Your task to perform on an android device: Open Wikipedia Image 0: 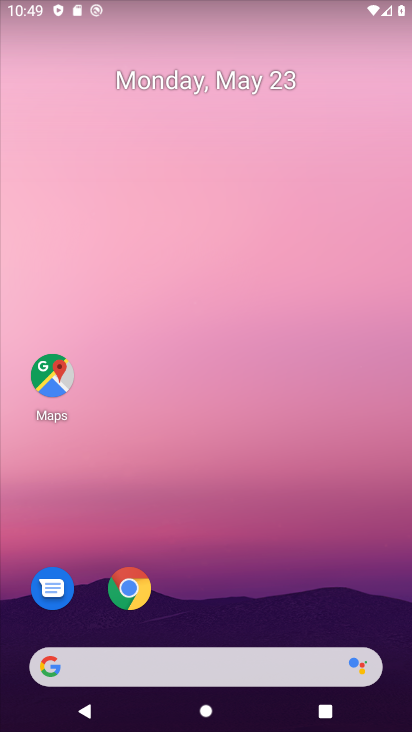
Step 0: click (119, 593)
Your task to perform on an android device: Open Wikipedia Image 1: 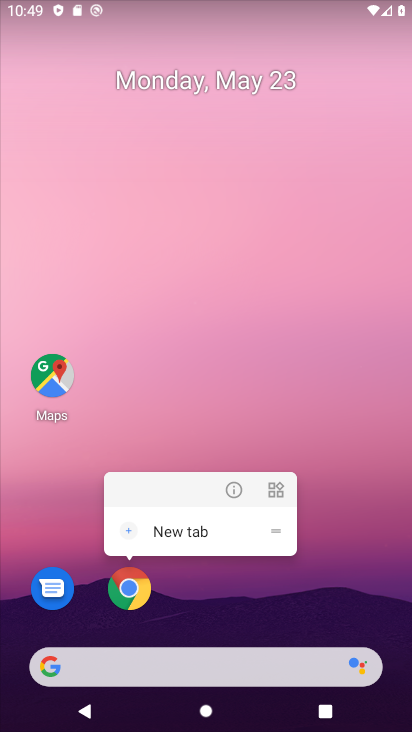
Step 1: click (120, 609)
Your task to perform on an android device: Open Wikipedia Image 2: 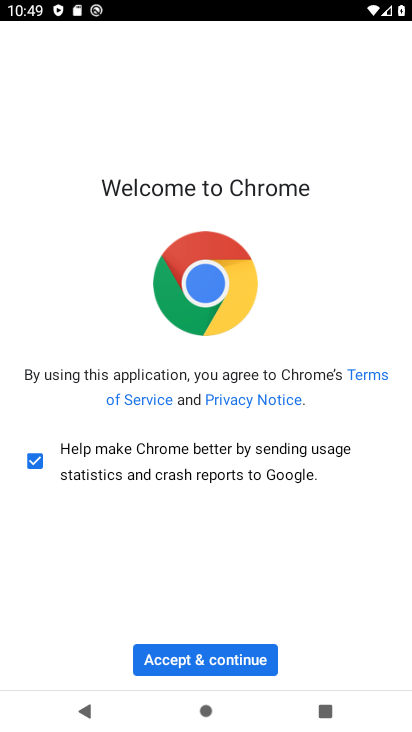
Step 2: click (120, 609)
Your task to perform on an android device: Open Wikipedia Image 3: 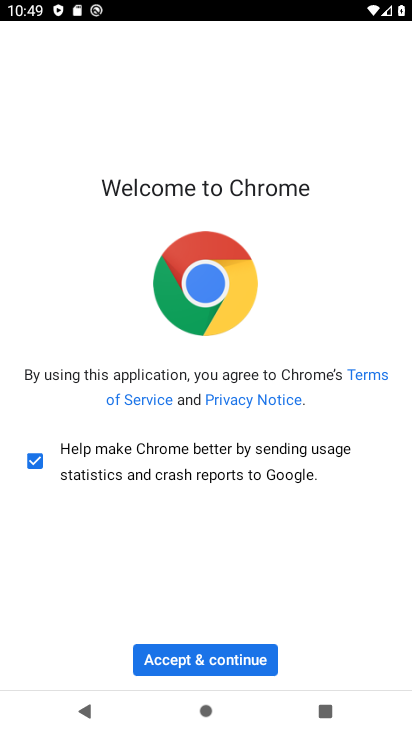
Step 3: click (120, 609)
Your task to perform on an android device: Open Wikipedia Image 4: 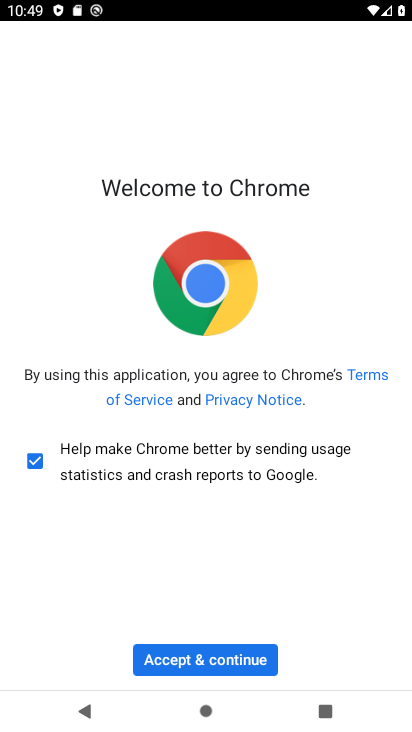
Step 4: click (193, 677)
Your task to perform on an android device: Open Wikipedia Image 5: 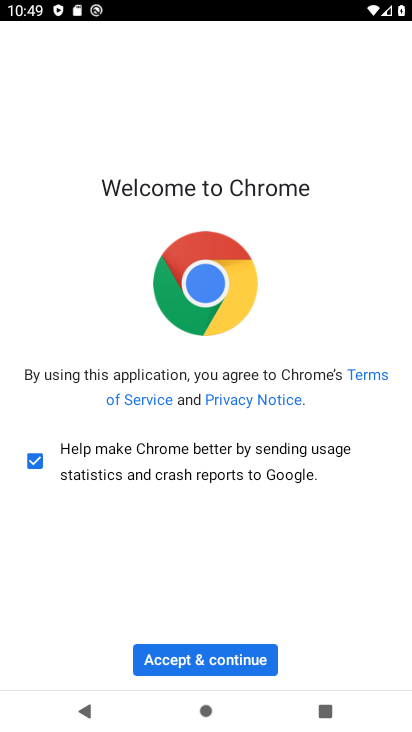
Step 5: click (224, 652)
Your task to perform on an android device: Open Wikipedia Image 6: 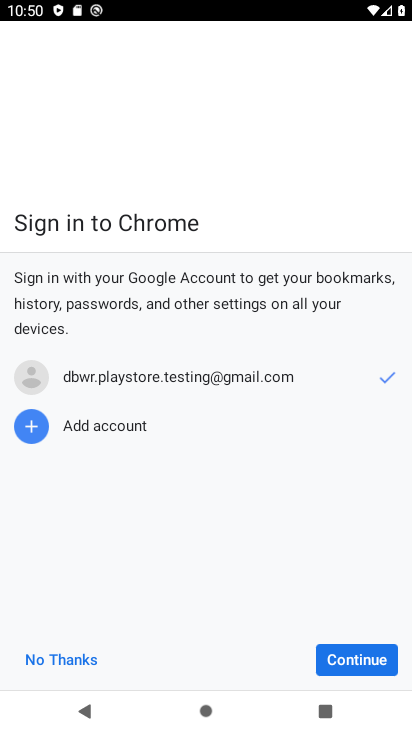
Step 6: click (372, 658)
Your task to perform on an android device: Open Wikipedia Image 7: 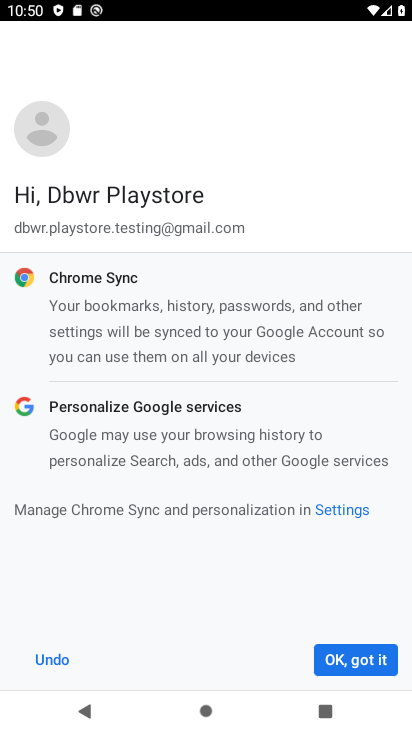
Step 7: click (372, 658)
Your task to perform on an android device: Open Wikipedia Image 8: 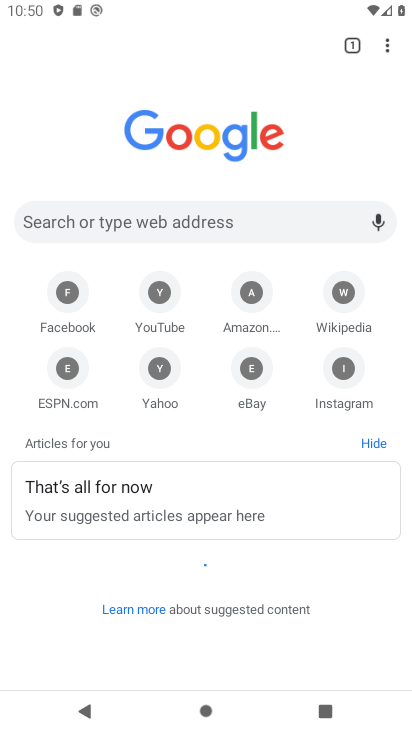
Step 8: click (338, 302)
Your task to perform on an android device: Open Wikipedia Image 9: 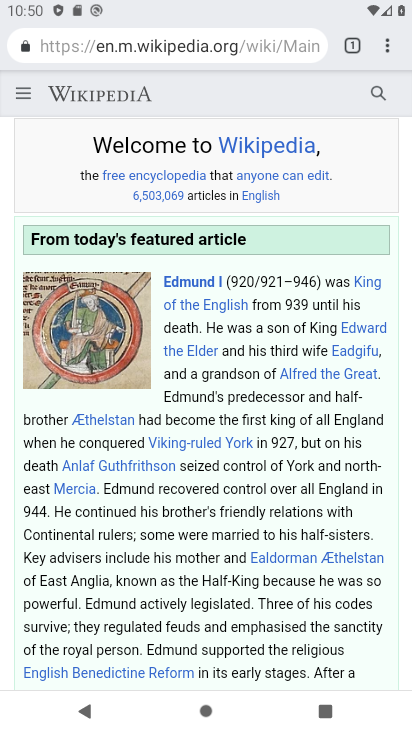
Step 9: task complete